Your task to perform on an android device: Go to wifi settings Image 0: 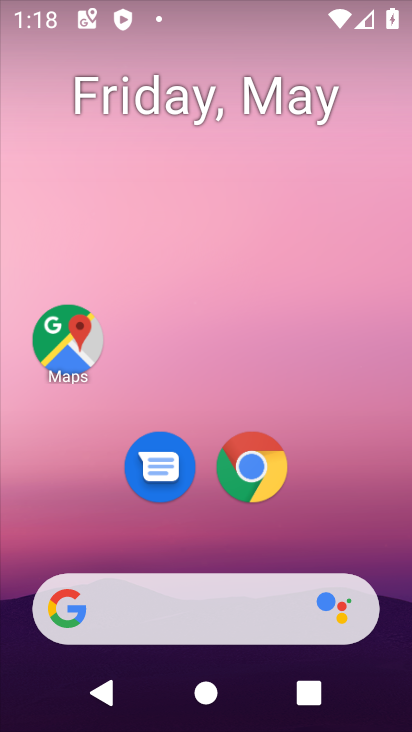
Step 0: drag from (341, 498) to (282, 39)
Your task to perform on an android device: Go to wifi settings Image 1: 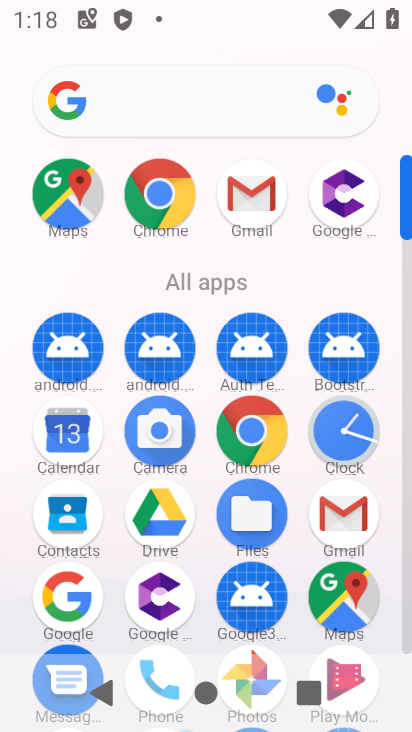
Step 1: drag from (385, 463) to (387, 167)
Your task to perform on an android device: Go to wifi settings Image 2: 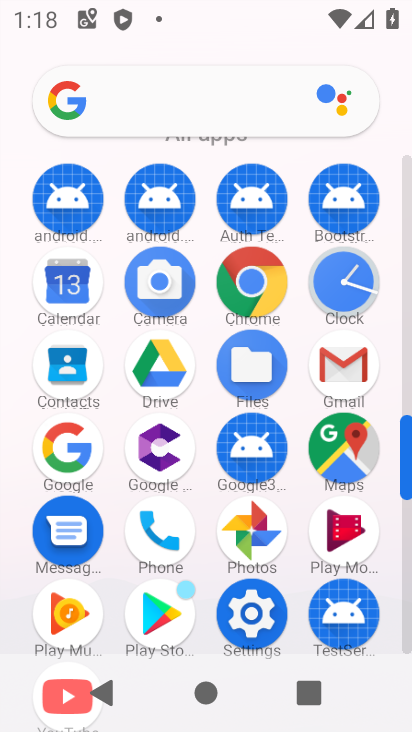
Step 2: drag from (394, 584) to (378, 216)
Your task to perform on an android device: Go to wifi settings Image 3: 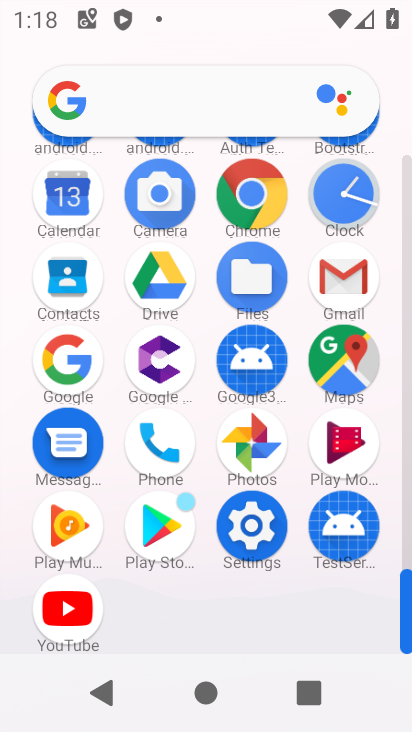
Step 3: click (247, 552)
Your task to perform on an android device: Go to wifi settings Image 4: 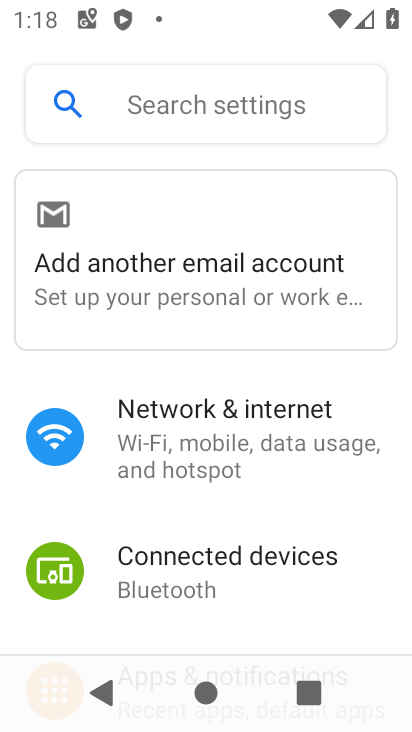
Step 4: click (202, 461)
Your task to perform on an android device: Go to wifi settings Image 5: 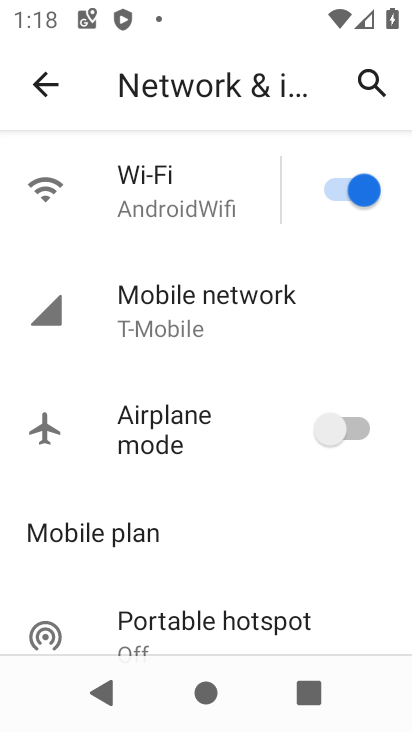
Step 5: click (201, 214)
Your task to perform on an android device: Go to wifi settings Image 6: 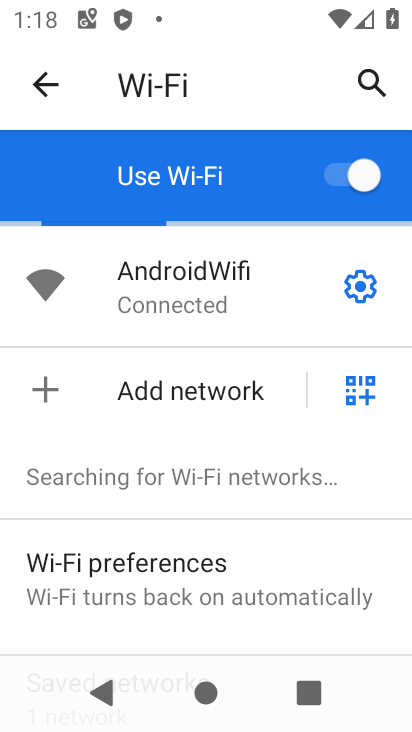
Step 6: task complete